Your task to perform on an android device: turn on sleep mode Image 0: 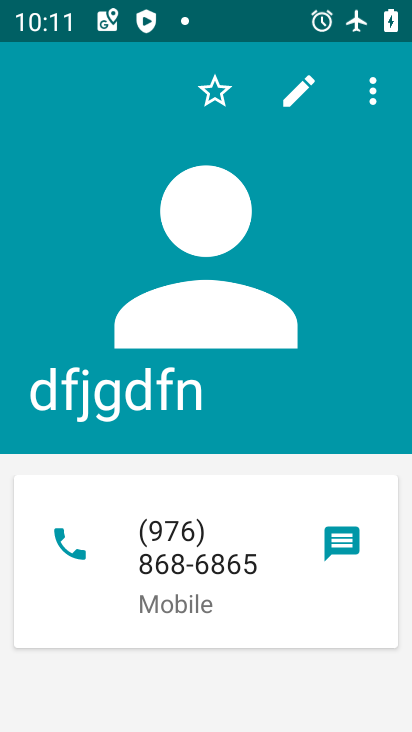
Step 0: press home button
Your task to perform on an android device: turn on sleep mode Image 1: 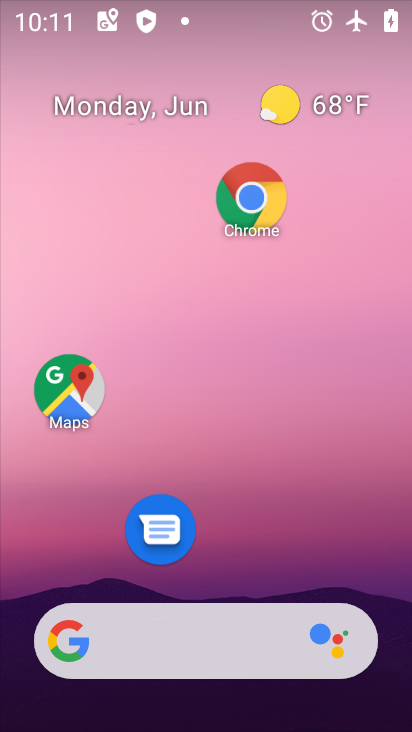
Step 1: drag from (224, 556) to (226, 135)
Your task to perform on an android device: turn on sleep mode Image 2: 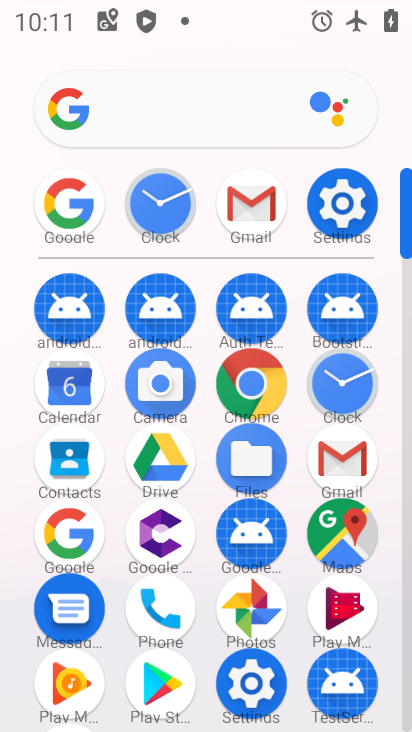
Step 2: click (347, 212)
Your task to perform on an android device: turn on sleep mode Image 3: 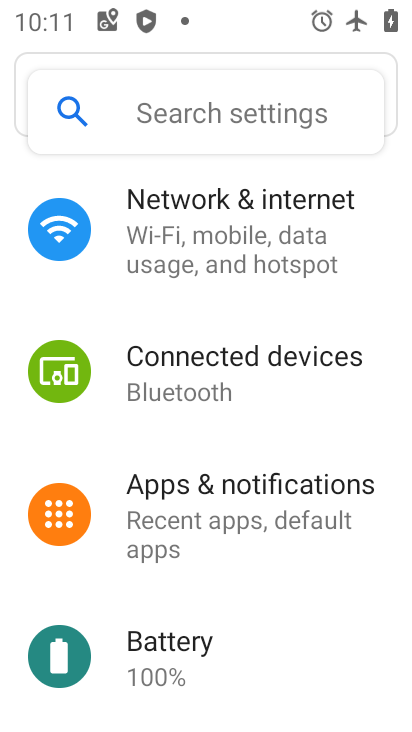
Step 3: drag from (212, 620) to (250, 297)
Your task to perform on an android device: turn on sleep mode Image 4: 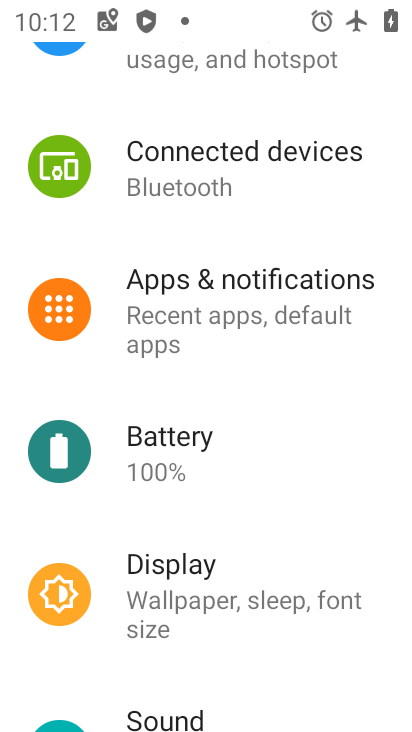
Step 4: click (182, 578)
Your task to perform on an android device: turn on sleep mode Image 5: 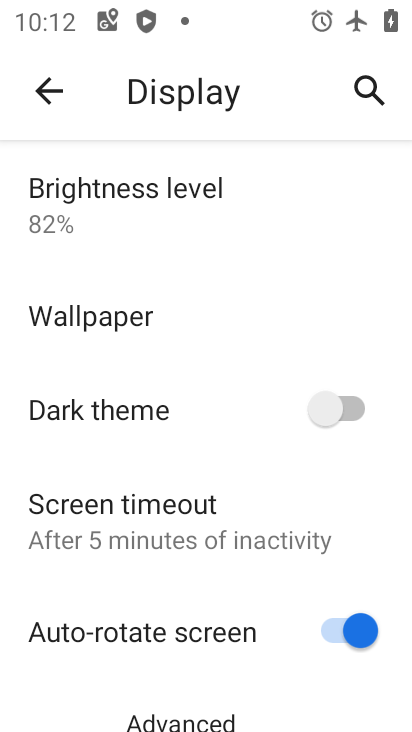
Step 5: click (176, 525)
Your task to perform on an android device: turn on sleep mode Image 6: 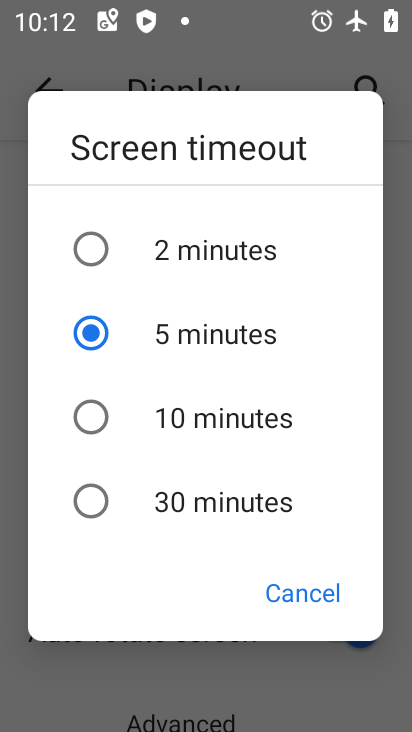
Step 6: click (173, 492)
Your task to perform on an android device: turn on sleep mode Image 7: 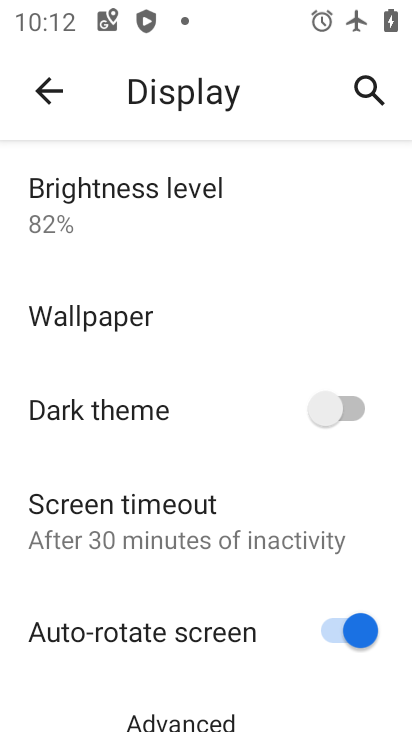
Step 7: task complete